Your task to perform on an android device: move an email to a new category in the gmail app Image 0: 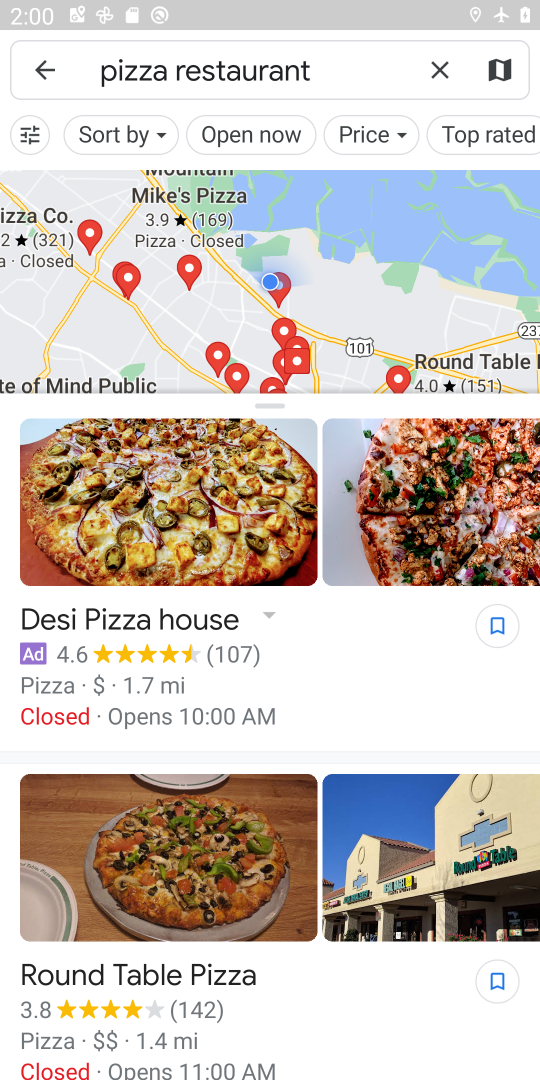
Step 0: press home button
Your task to perform on an android device: move an email to a new category in the gmail app Image 1: 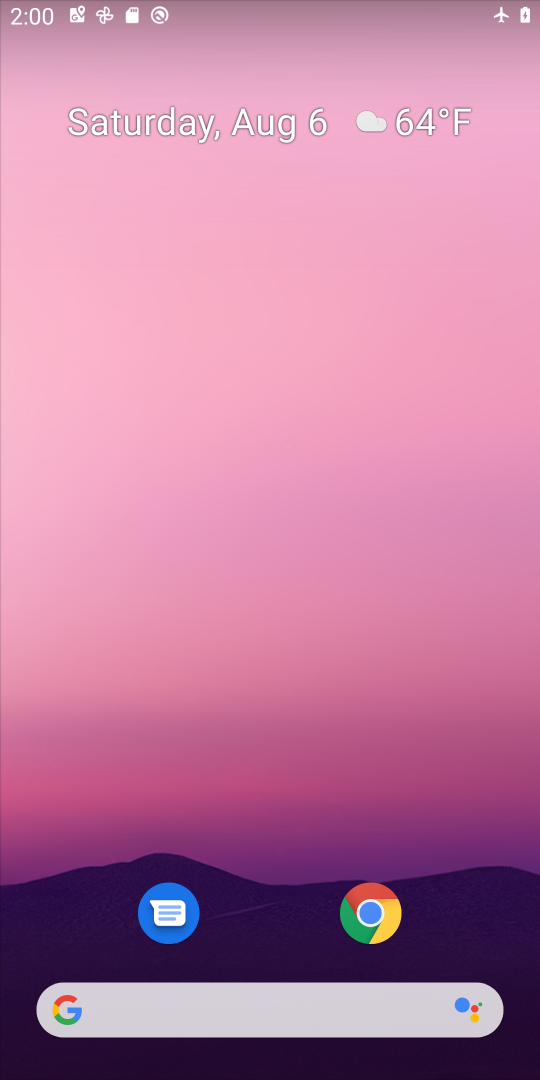
Step 1: drag from (468, 930) to (497, 403)
Your task to perform on an android device: move an email to a new category in the gmail app Image 2: 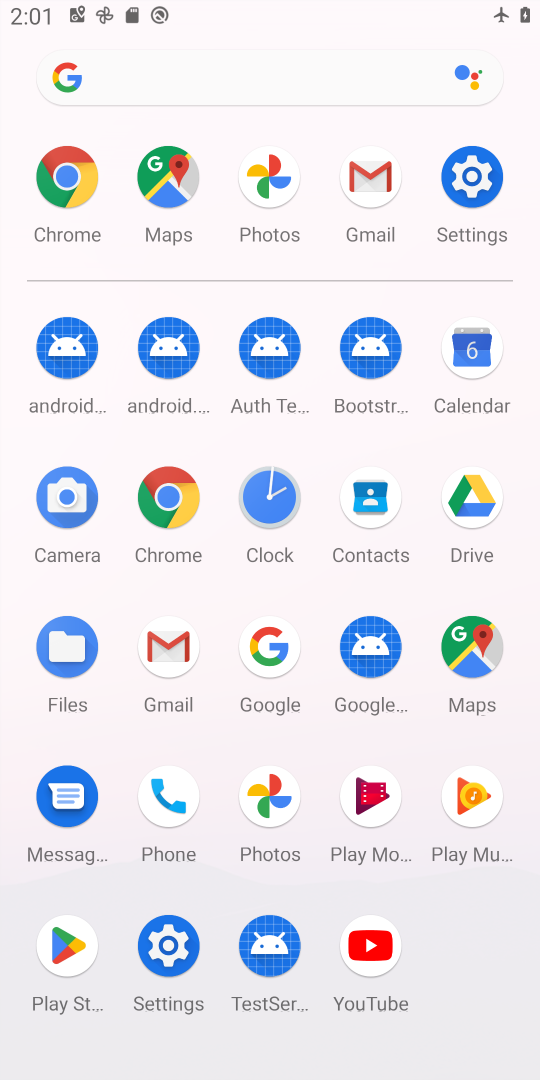
Step 2: click (167, 653)
Your task to perform on an android device: move an email to a new category in the gmail app Image 3: 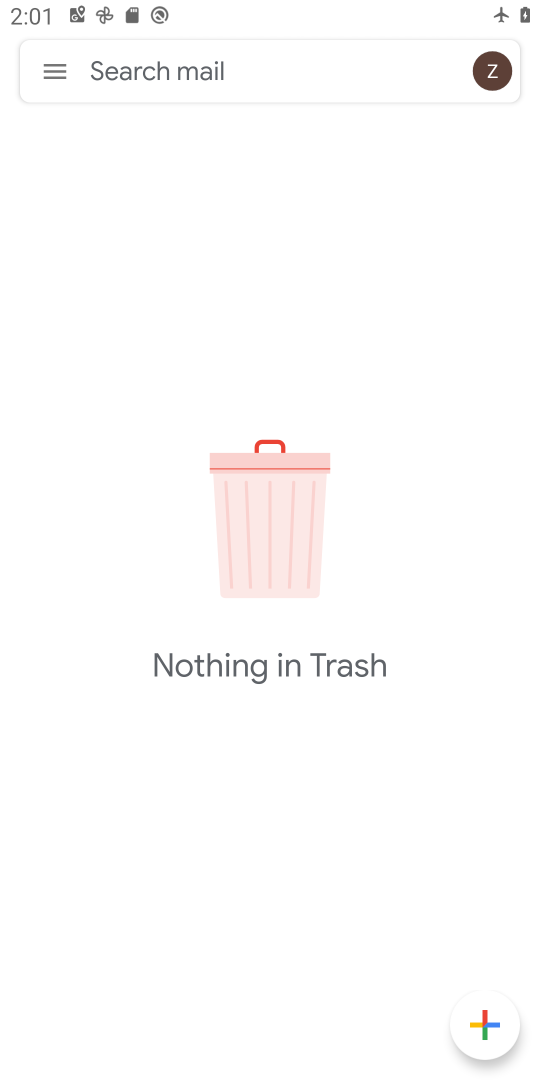
Step 3: click (52, 61)
Your task to perform on an android device: move an email to a new category in the gmail app Image 4: 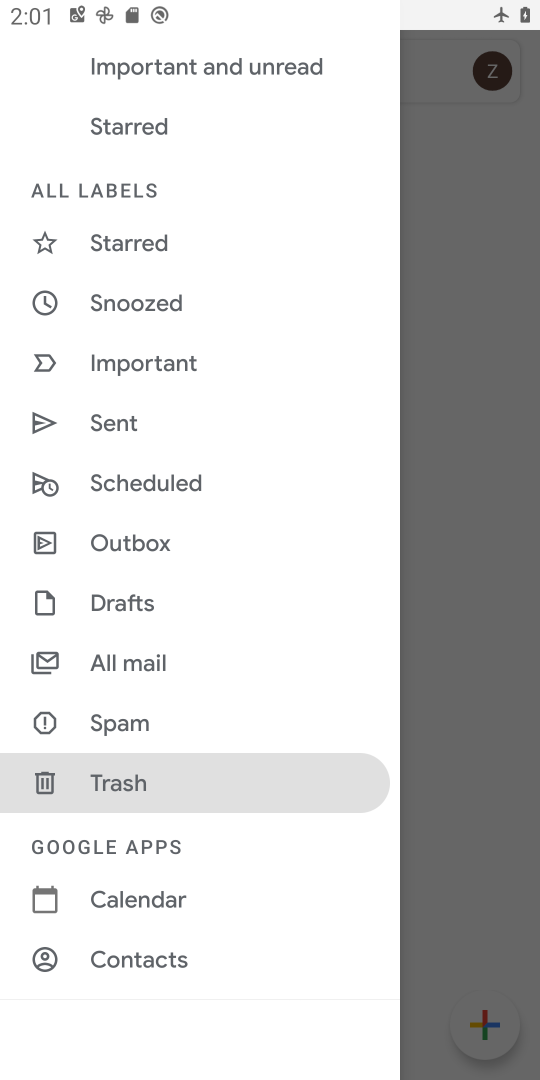
Step 4: click (159, 669)
Your task to perform on an android device: move an email to a new category in the gmail app Image 5: 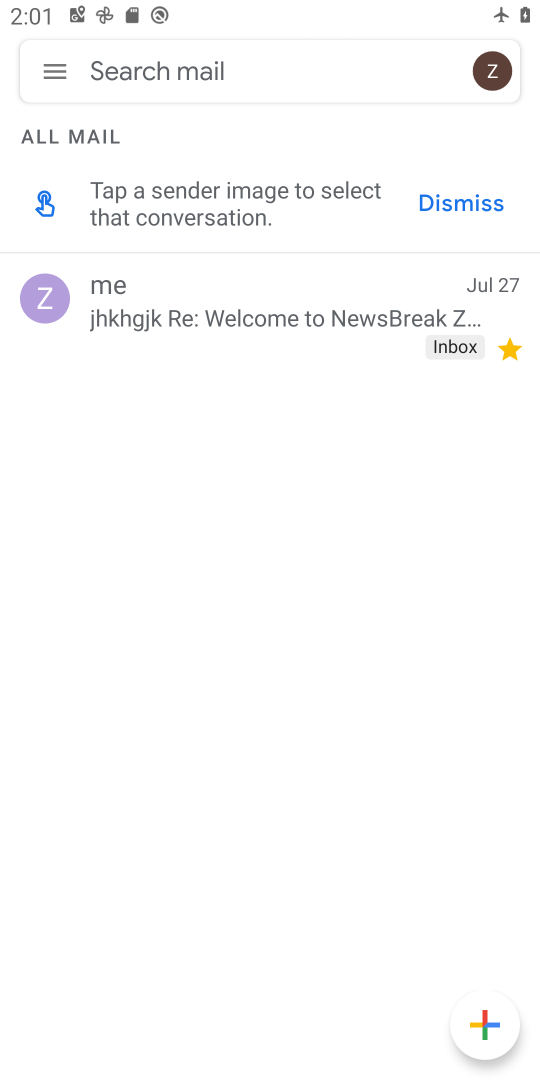
Step 5: click (276, 311)
Your task to perform on an android device: move an email to a new category in the gmail app Image 6: 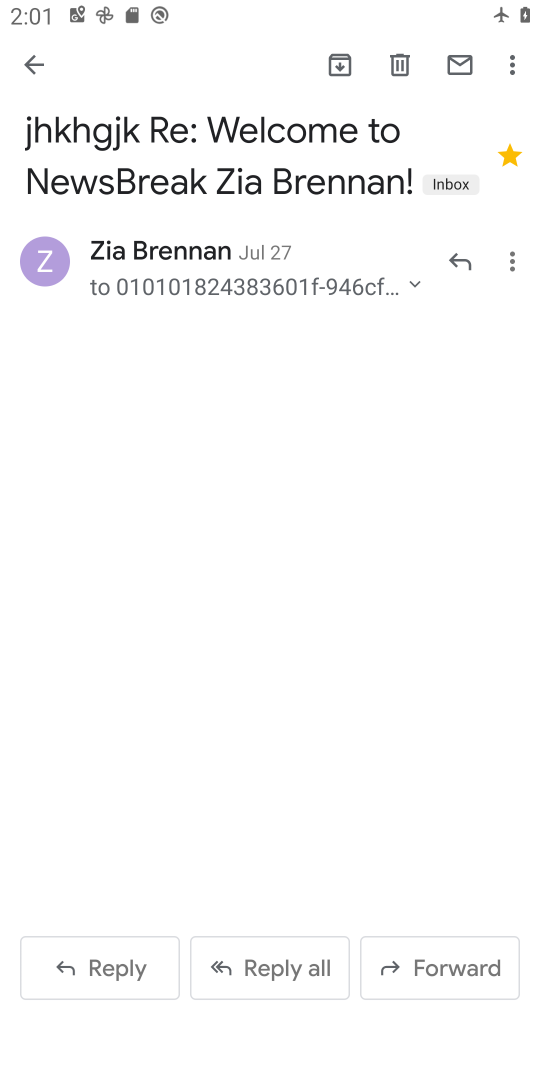
Step 6: click (512, 69)
Your task to perform on an android device: move an email to a new category in the gmail app Image 7: 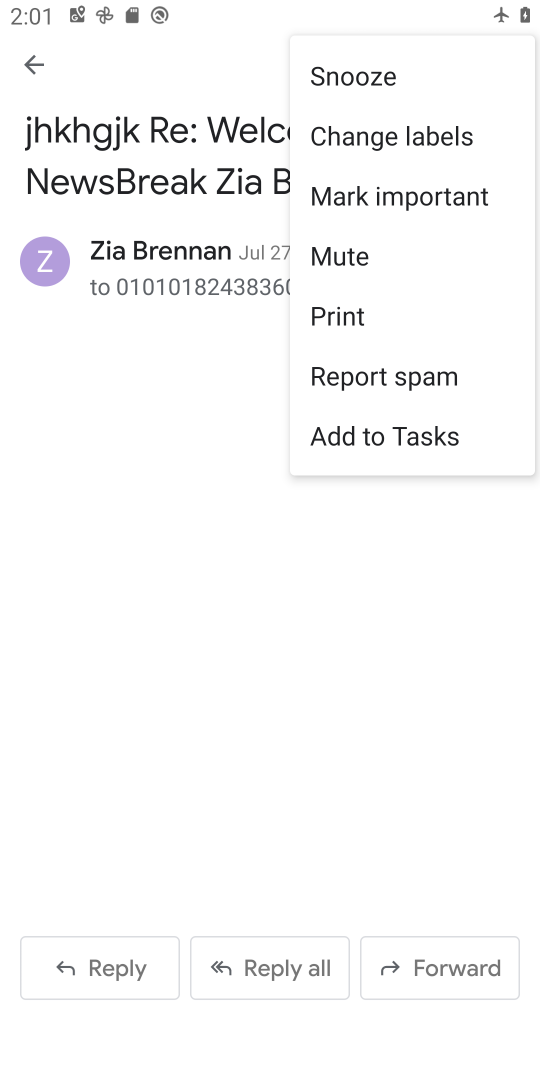
Step 7: task complete